Your task to perform on an android device: Open maps Image 0: 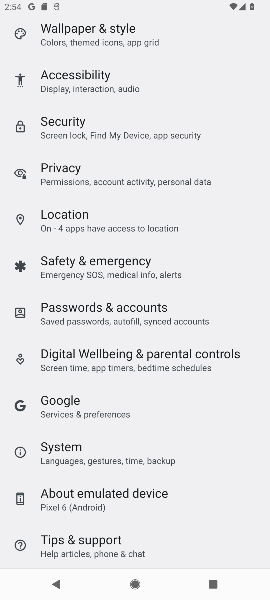
Step 0: press back button
Your task to perform on an android device: Open maps Image 1: 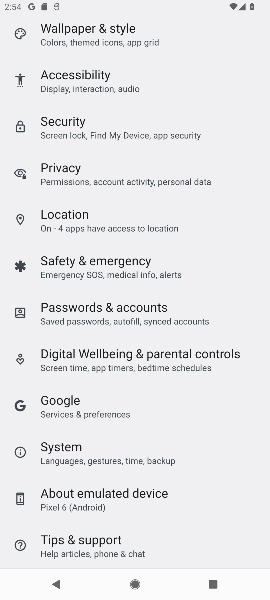
Step 1: press back button
Your task to perform on an android device: Open maps Image 2: 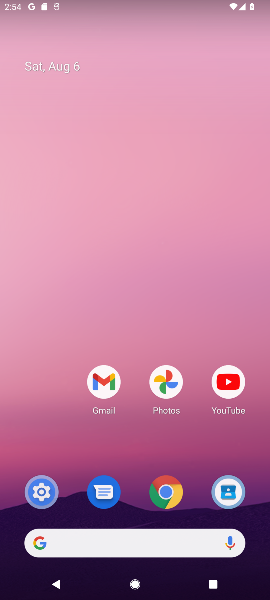
Step 2: press back button
Your task to perform on an android device: Open maps Image 3: 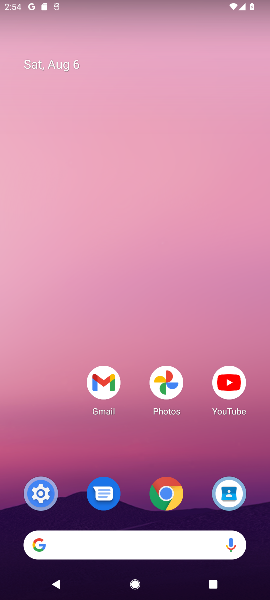
Step 3: press back button
Your task to perform on an android device: Open maps Image 4: 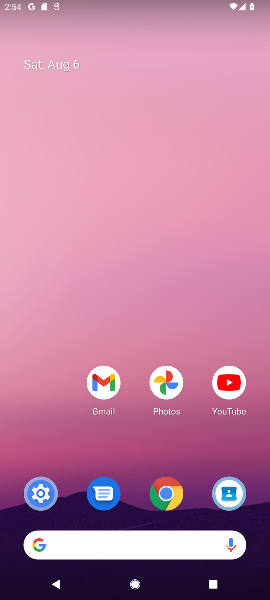
Step 4: press back button
Your task to perform on an android device: Open maps Image 5: 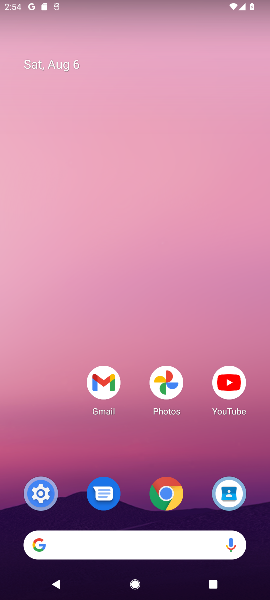
Step 5: drag from (180, 520) to (106, 62)
Your task to perform on an android device: Open maps Image 6: 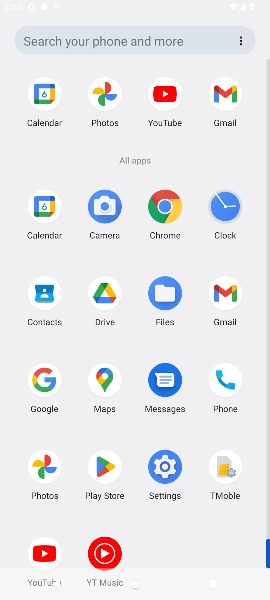
Step 6: drag from (139, 404) to (131, 63)
Your task to perform on an android device: Open maps Image 7: 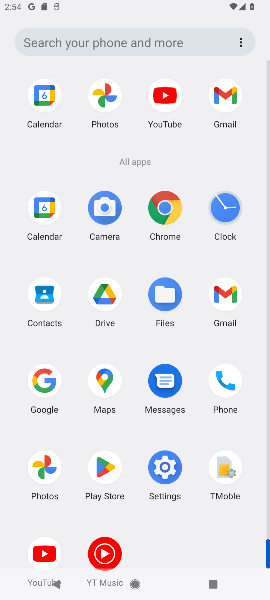
Step 7: drag from (148, 496) to (108, 114)
Your task to perform on an android device: Open maps Image 8: 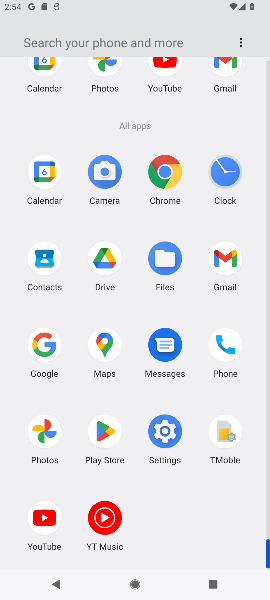
Step 8: click (101, 346)
Your task to perform on an android device: Open maps Image 9: 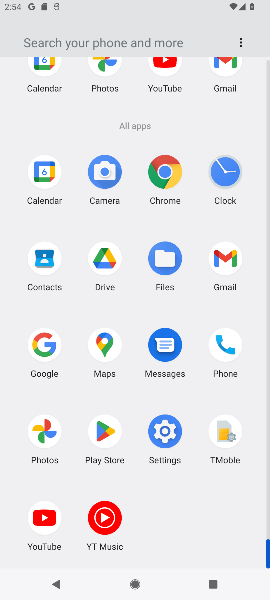
Step 9: click (101, 346)
Your task to perform on an android device: Open maps Image 10: 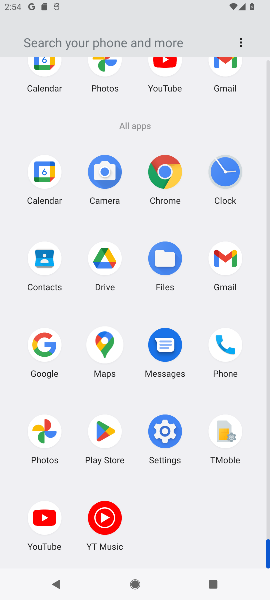
Step 10: click (101, 346)
Your task to perform on an android device: Open maps Image 11: 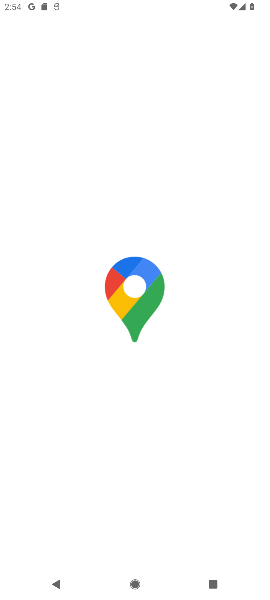
Step 11: click (101, 346)
Your task to perform on an android device: Open maps Image 12: 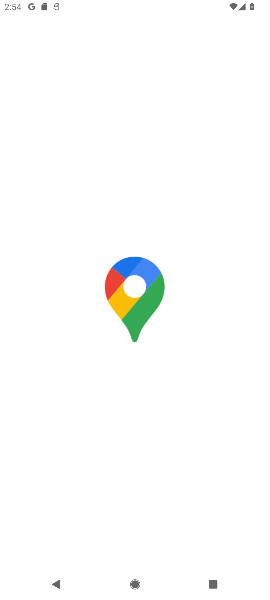
Step 12: click (101, 346)
Your task to perform on an android device: Open maps Image 13: 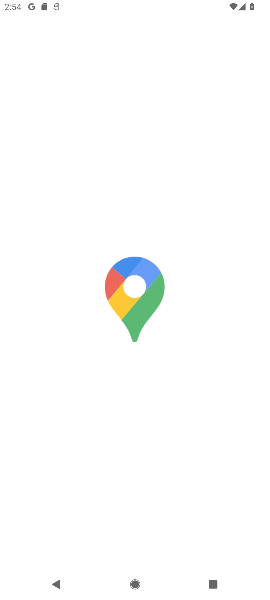
Step 13: click (132, 287)
Your task to perform on an android device: Open maps Image 14: 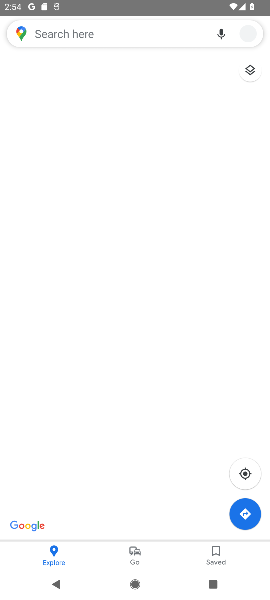
Step 14: click (129, 281)
Your task to perform on an android device: Open maps Image 15: 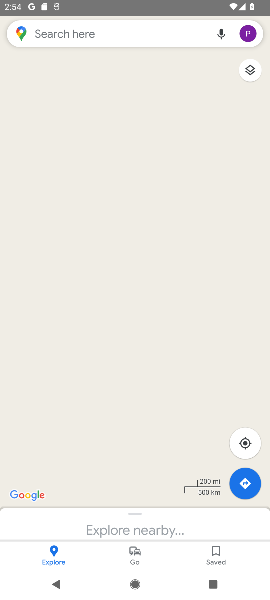
Step 15: click (50, 35)
Your task to perform on an android device: Open maps Image 16: 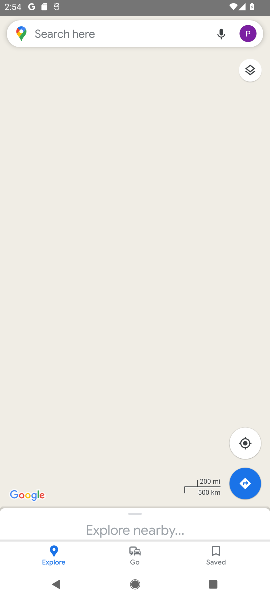
Step 16: click (49, 35)
Your task to perform on an android device: Open maps Image 17: 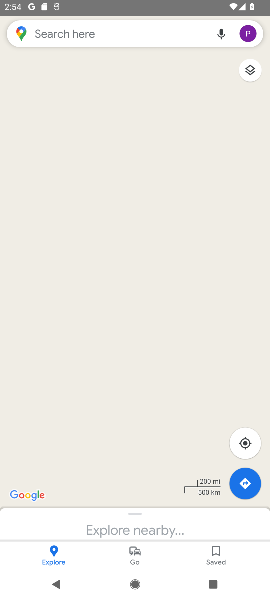
Step 17: click (49, 35)
Your task to perform on an android device: Open maps Image 18: 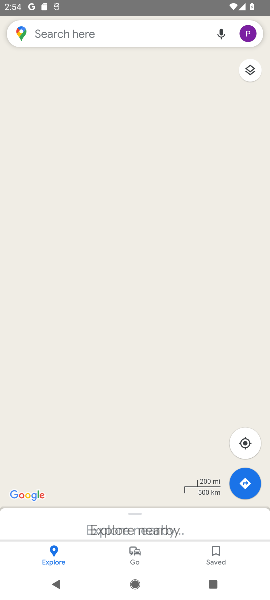
Step 18: click (49, 35)
Your task to perform on an android device: Open maps Image 19: 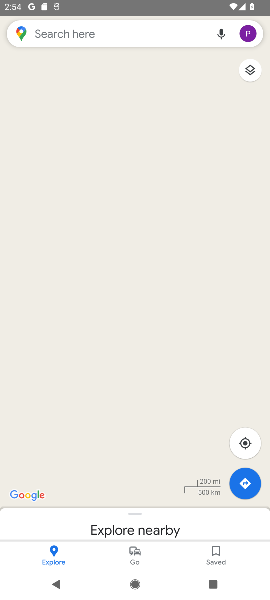
Step 19: click (49, 35)
Your task to perform on an android device: Open maps Image 20: 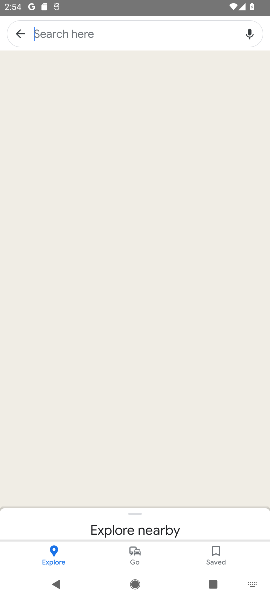
Step 20: click (49, 35)
Your task to perform on an android device: Open maps Image 21: 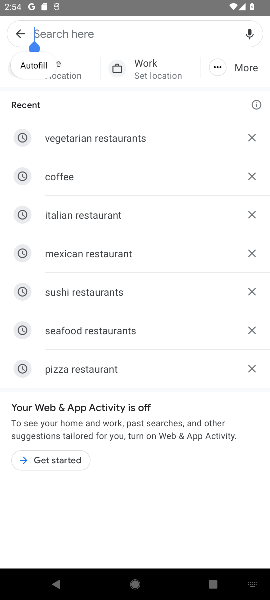
Step 21: task complete